Your task to perform on an android device: Open calendar and show me the first week of next month Image 0: 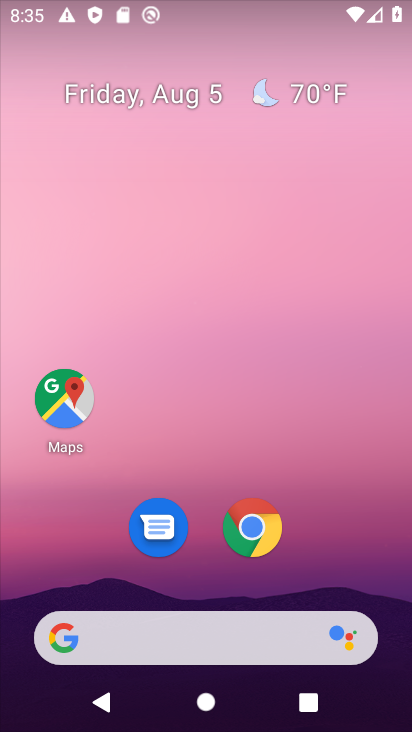
Step 0: drag from (197, 629) to (241, 138)
Your task to perform on an android device: Open calendar and show me the first week of next month Image 1: 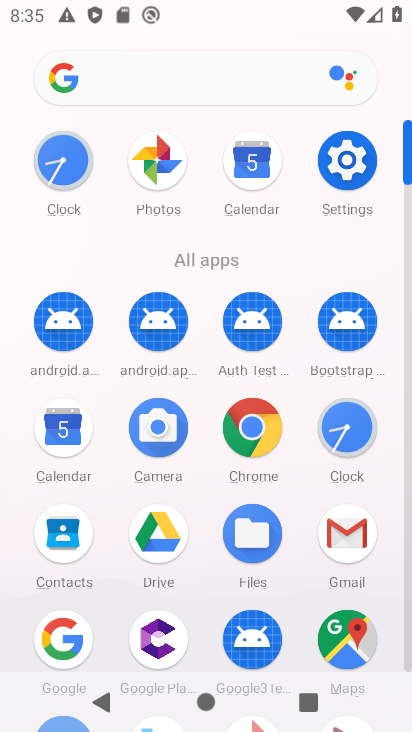
Step 1: click (67, 448)
Your task to perform on an android device: Open calendar and show me the first week of next month Image 2: 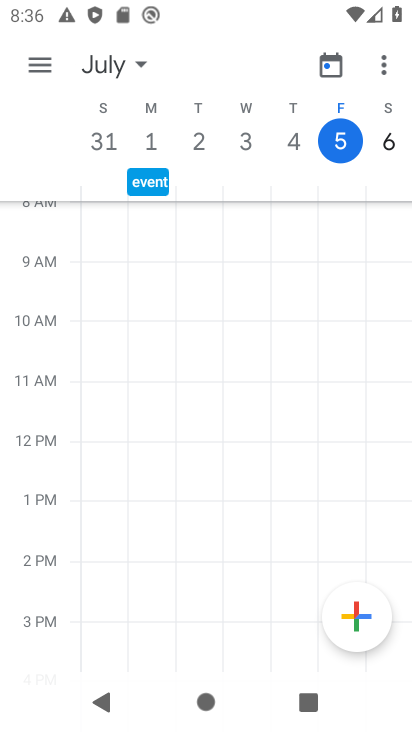
Step 2: click (35, 73)
Your task to perform on an android device: Open calendar and show me the first week of next month Image 3: 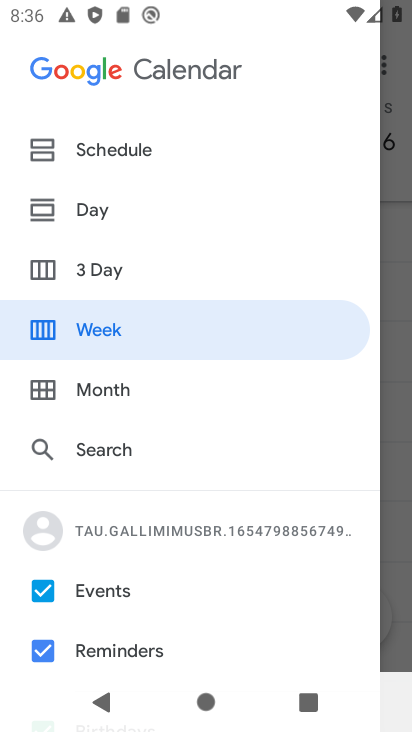
Step 3: click (106, 399)
Your task to perform on an android device: Open calendar and show me the first week of next month Image 4: 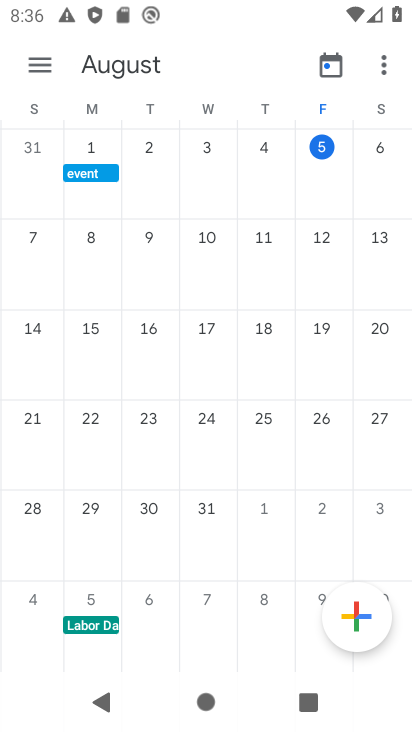
Step 4: task complete